Your task to perform on an android device: change keyboard looks Image 0: 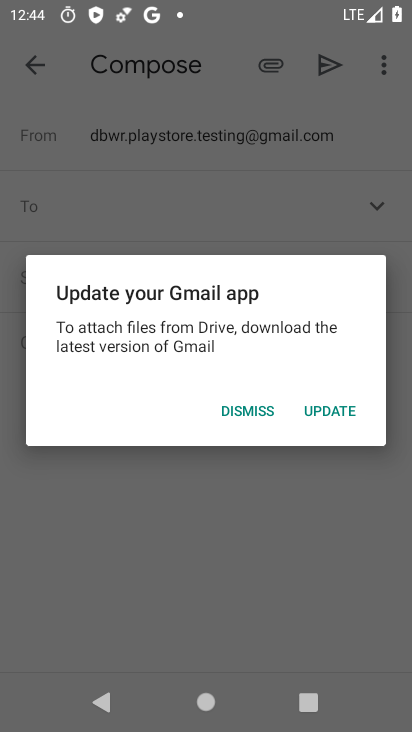
Step 0: click (321, 398)
Your task to perform on an android device: change keyboard looks Image 1: 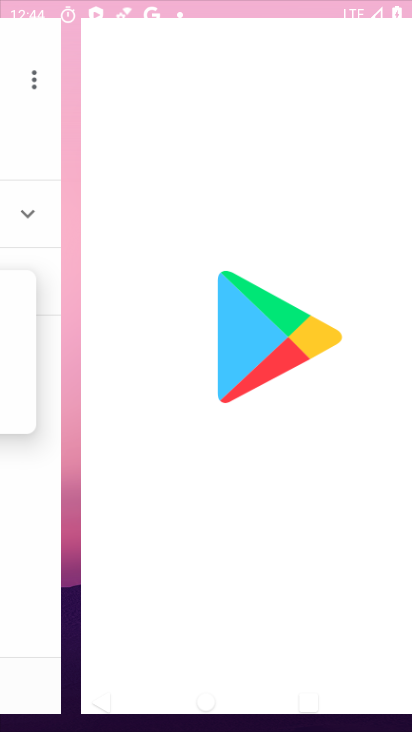
Step 1: click (254, 405)
Your task to perform on an android device: change keyboard looks Image 2: 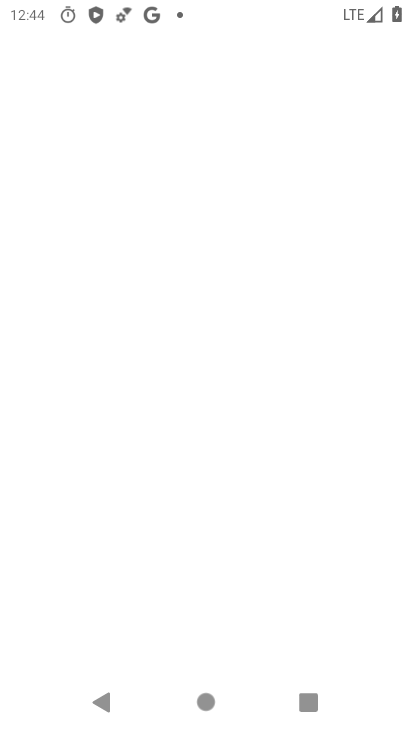
Step 2: press back button
Your task to perform on an android device: change keyboard looks Image 3: 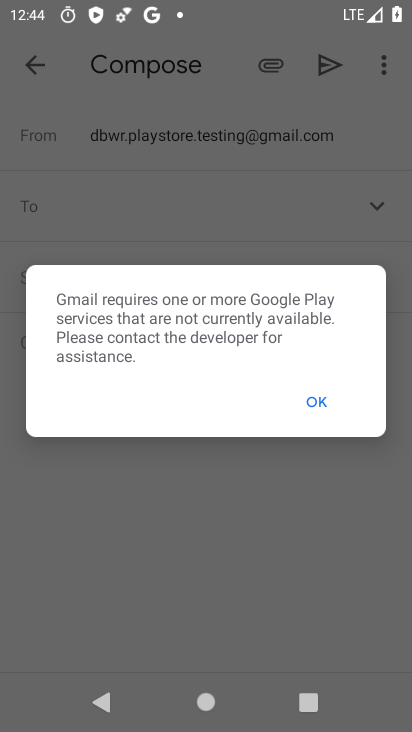
Step 3: press home button
Your task to perform on an android device: change keyboard looks Image 4: 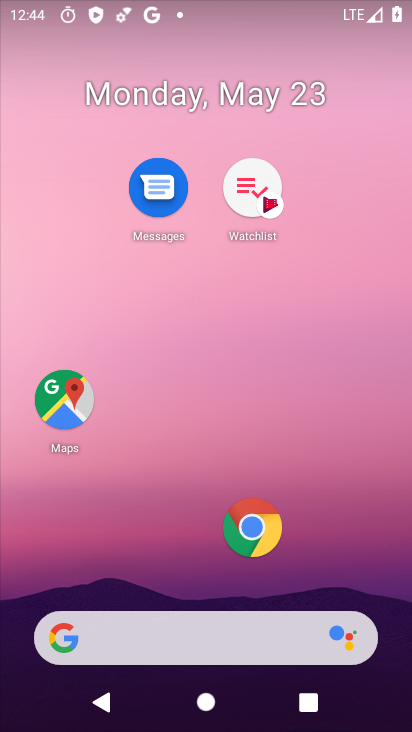
Step 4: drag from (341, 686) to (239, 78)
Your task to perform on an android device: change keyboard looks Image 5: 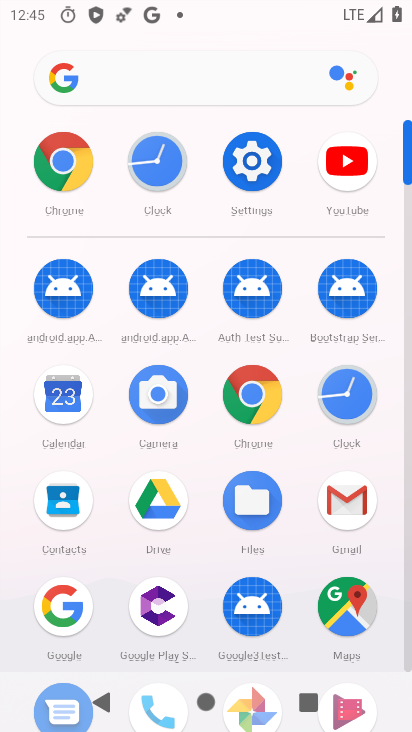
Step 5: click (251, 159)
Your task to perform on an android device: change keyboard looks Image 6: 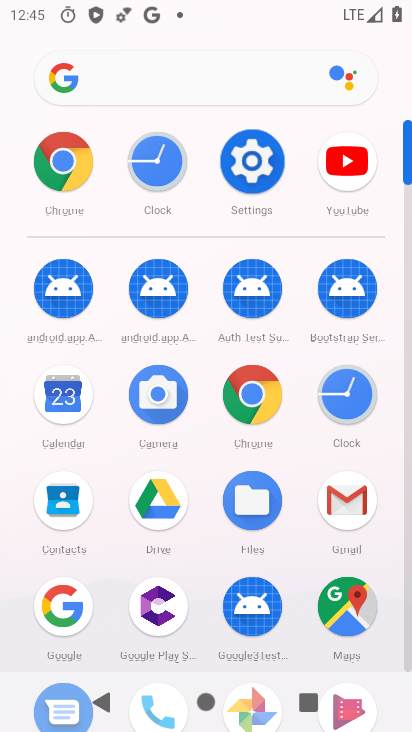
Step 6: click (250, 160)
Your task to perform on an android device: change keyboard looks Image 7: 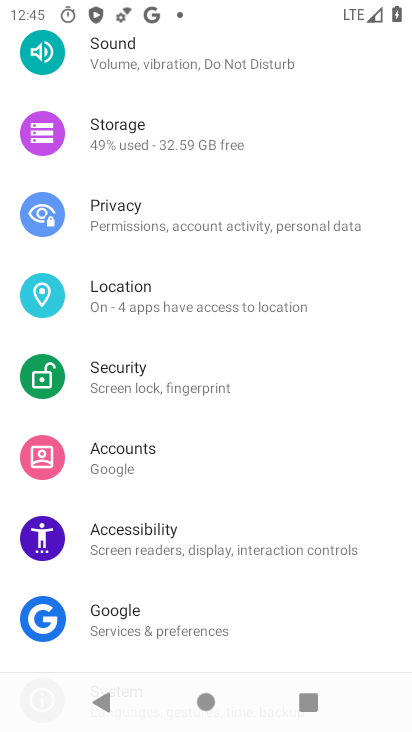
Step 7: drag from (139, 567) to (113, 119)
Your task to perform on an android device: change keyboard looks Image 8: 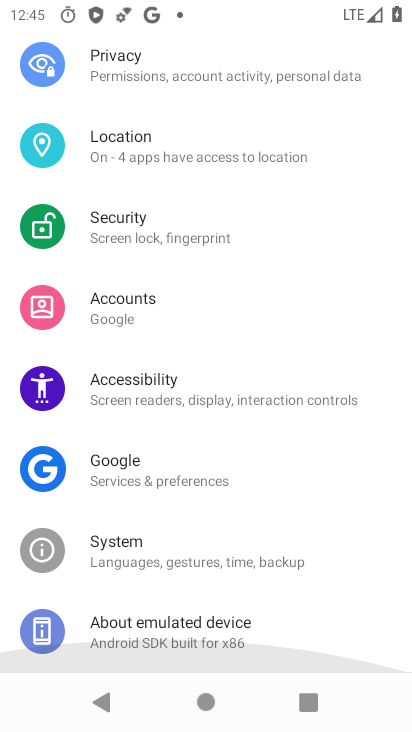
Step 8: drag from (219, 480) to (176, 198)
Your task to perform on an android device: change keyboard looks Image 9: 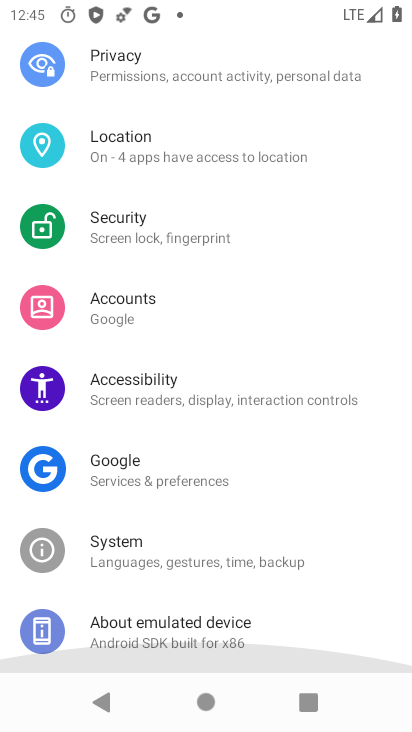
Step 9: drag from (225, 551) to (305, 182)
Your task to perform on an android device: change keyboard looks Image 10: 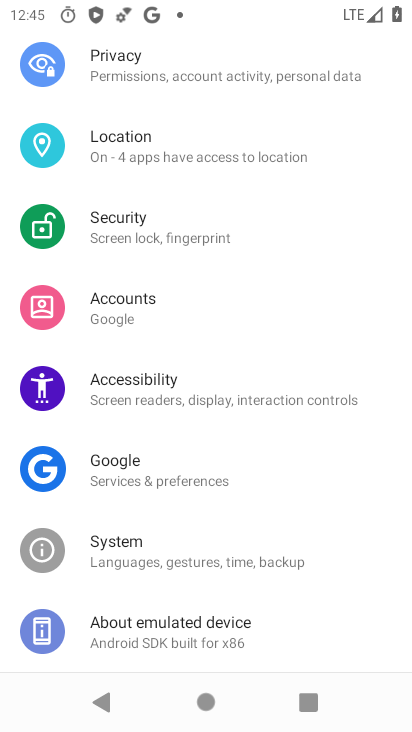
Step 10: click (120, 542)
Your task to perform on an android device: change keyboard looks Image 11: 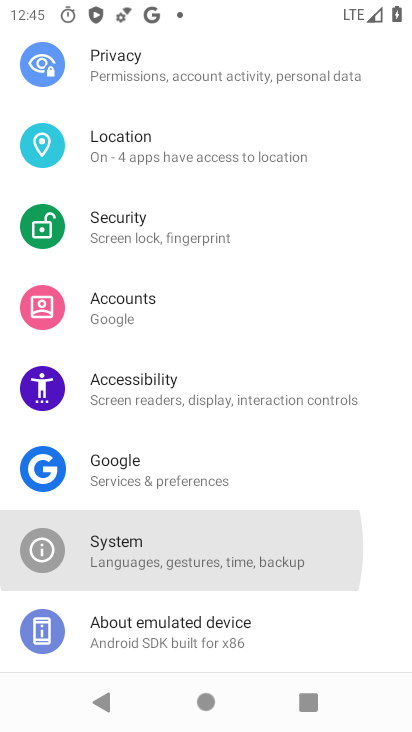
Step 11: click (109, 552)
Your task to perform on an android device: change keyboard looks Image 12: 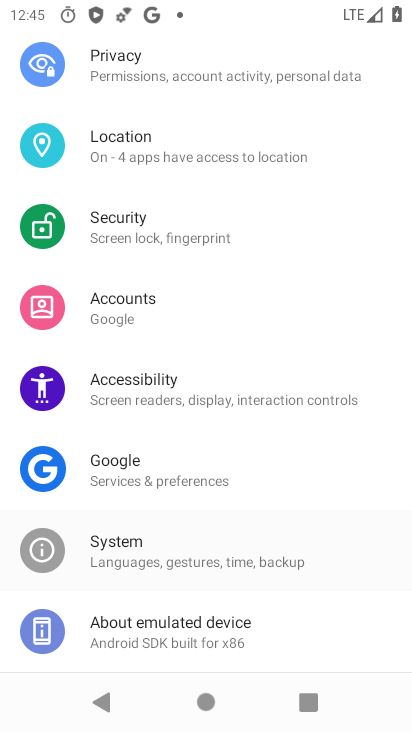
Step 12: click (110, 555)
Your task to perform on an android device: change keyboard looks Image 13: 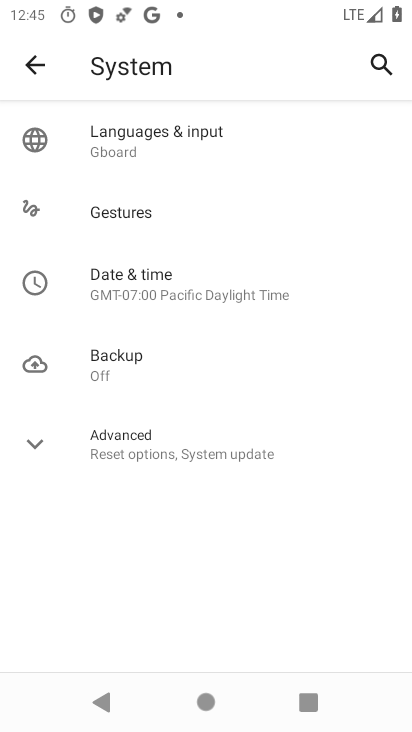
Step 13: click (112, 143)
Your task to perform on an android device: change keyboard looks Image 14: 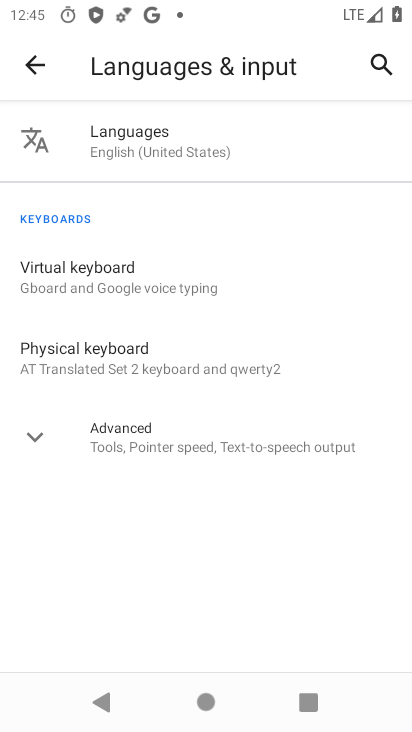
Step 14: click (82, 282)
Your task to perform on an android device: change keyboard looks Image 15: 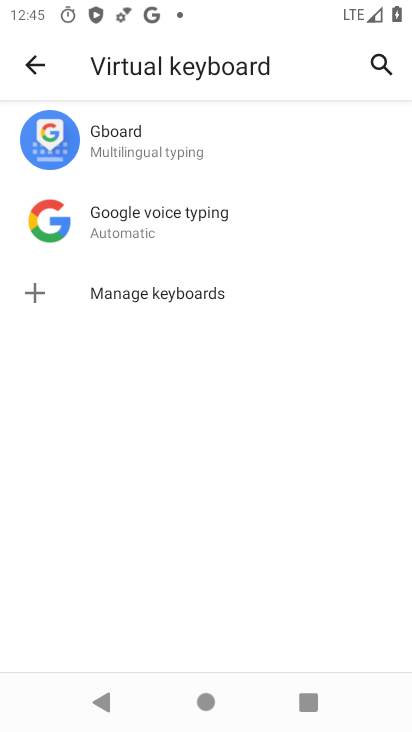
Step 15: click (122, 141)
Your task to perform on an android device: change keyboard looks Image 16: 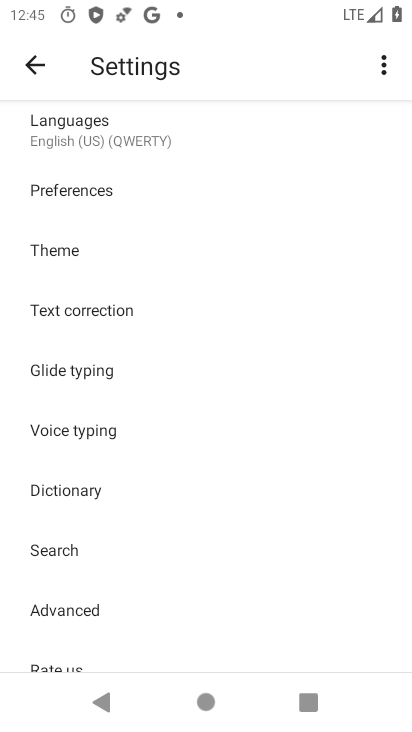
Step 16: click (44, 245)
Your task to perform on an android device: change keyboard looks Image 17: 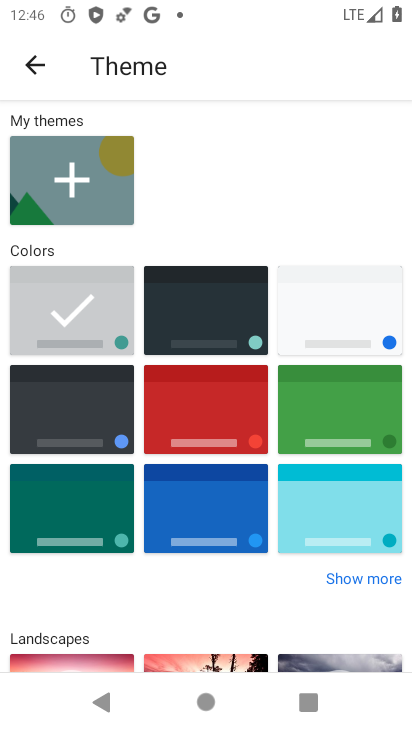
Step 17: drag from (166, 388) to (164, 213)
Your task to perform on an android device: change keyboard looks Image 18: 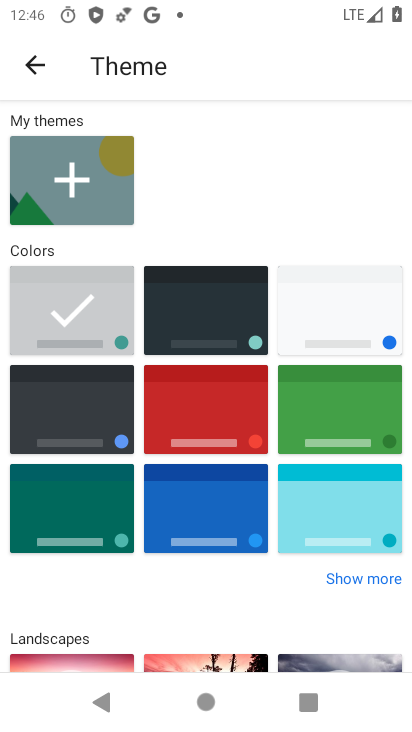
Step 18: drag from (188, 420) to (170, 200)
Your task to perform on an android device: change keyboard looks Image 19: 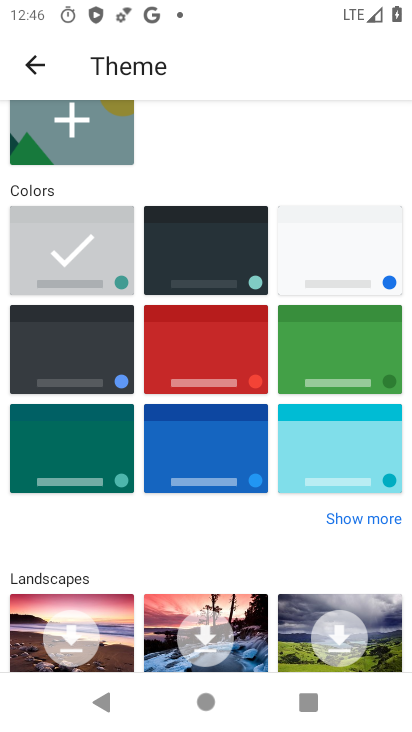
Step 19: drag from (187, 320) to (182, 218)
Your task to perform on an android device: change keyboard looks Image 20: 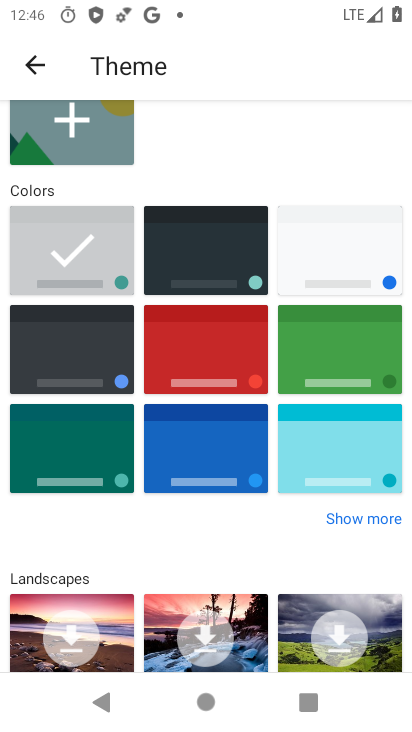
Step 20: click (178, 237)
Your task to perform on an android device: change keyboard looks Image 21: 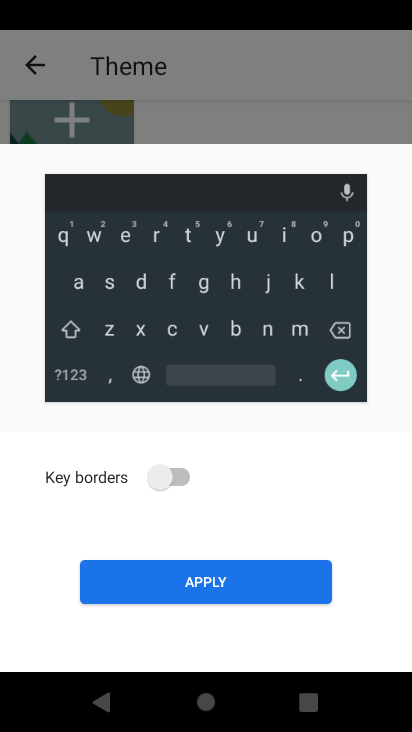
Step 21: task complete